Your task to perform on an android device: toggle data saver in the chrome app Image 0: 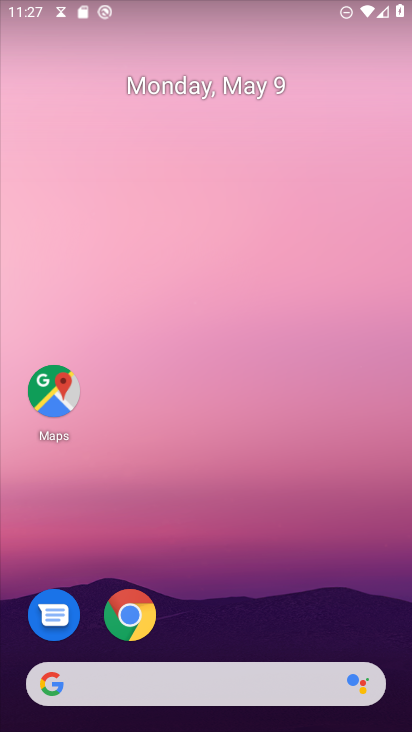
Step 0: click (129, 617)
Your task to perform on an android device: toggle data saver in the chrome app Image 1: 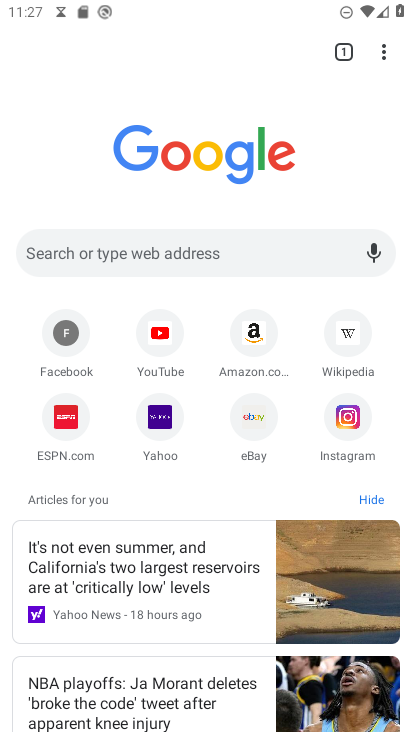
Step 1: click (384, 59)
Your task to perform on an android device: toggle data saver in the chrome app Image 2: 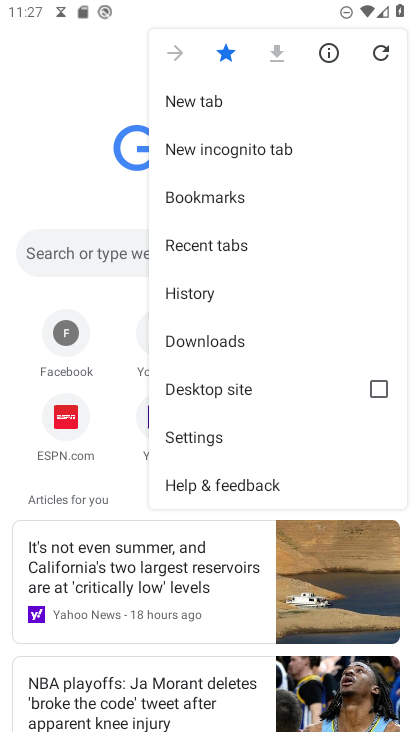
Step 2: click (198, 437)
Your task to perform on an android device: toggle data saver in the chrome app Image 3: 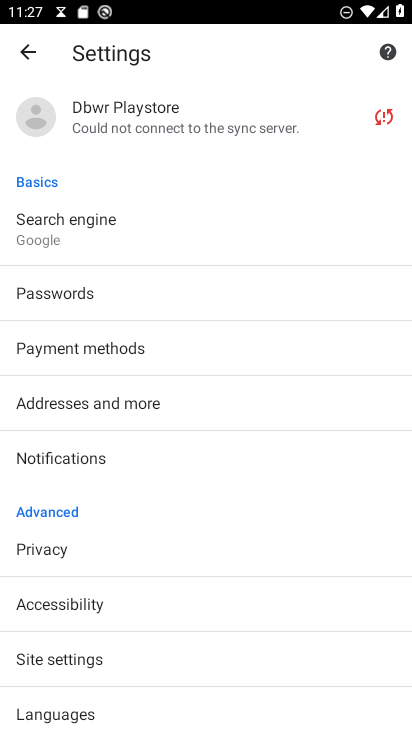
Step 3: drag from (249, 690) to (245, 355)
Your task to perform on an android device: toggle data saver in the chrome app Image 4: 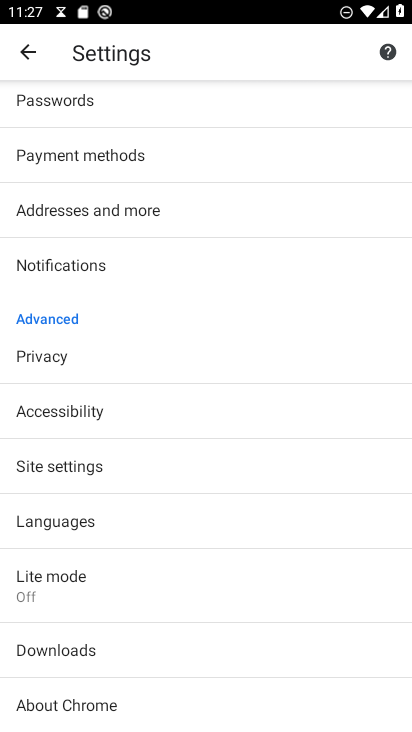
Step 4: click (62, 579)
Your task to perform on an android device: toggle data saver in the chrome app Image 5: 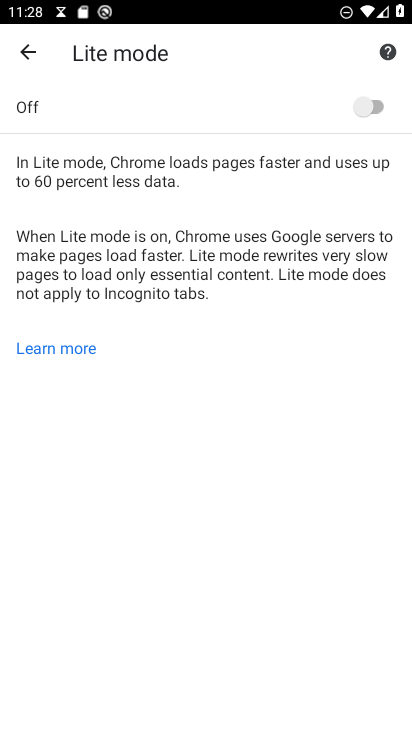
Step 5: task complete